Your task to perform on an android device: allow notifications from all sites in the chrome app Image 0: 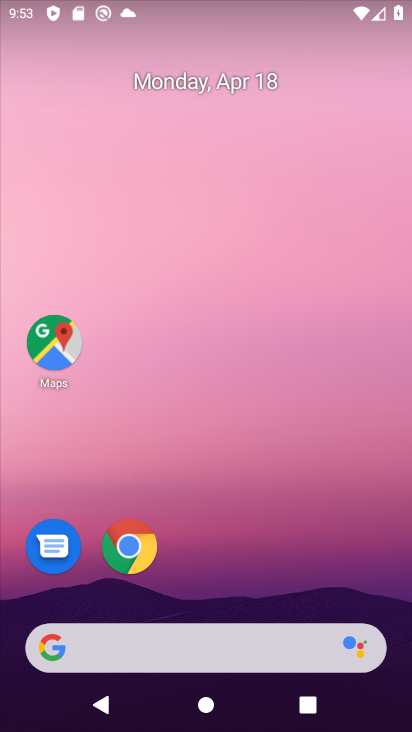
Step 0: click (124, 545)
Your task to perform on an android device: allow notifications from all sites in the chrome app Image 1: 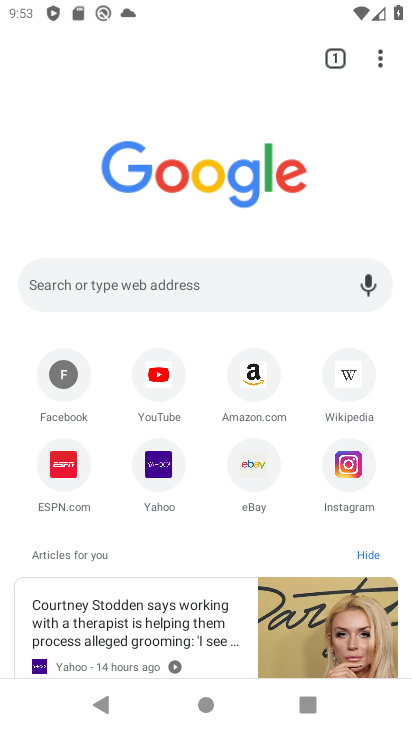
Step 1: click (377, 58)
Your task to perform on an android device: allow notifications from all sites in the chrome app Image 2: 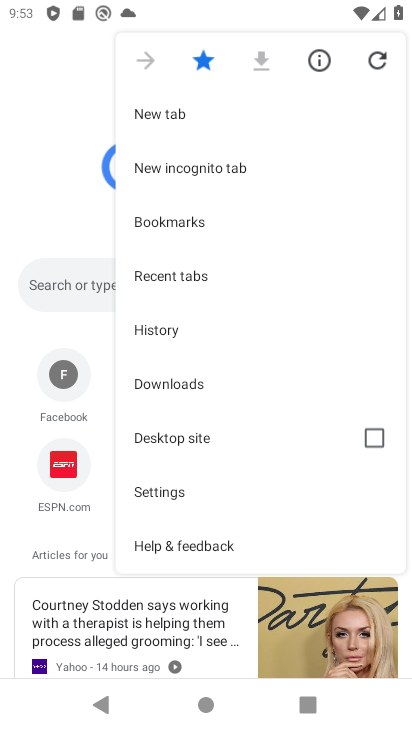
Step 2: click (168, 487)
Your task to perform on an android device: allow notifications from all sites in the chrome app Image 3: 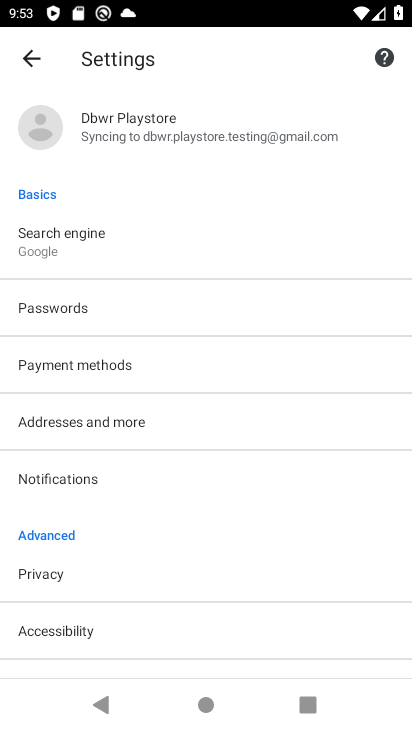
Step 3: drag from (130, 603) to (128, 292)
Your task to perform on an android device: allow notifications from all sites in the chrome app Image 4: 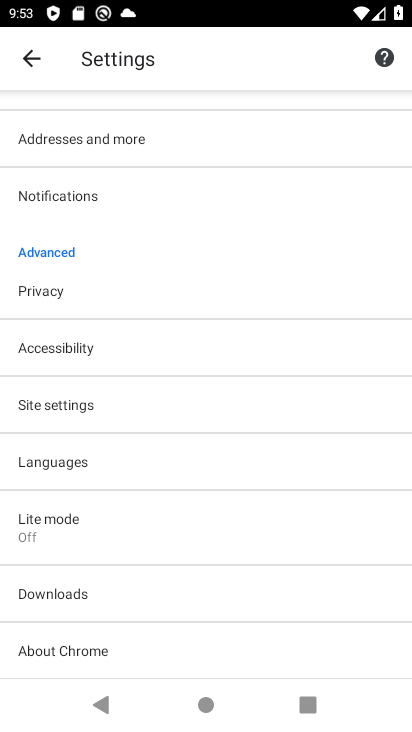
Step 4: click (50, 400)
Your task to perform on an android device: allow notifications from all sites in the chrome app Image 5: 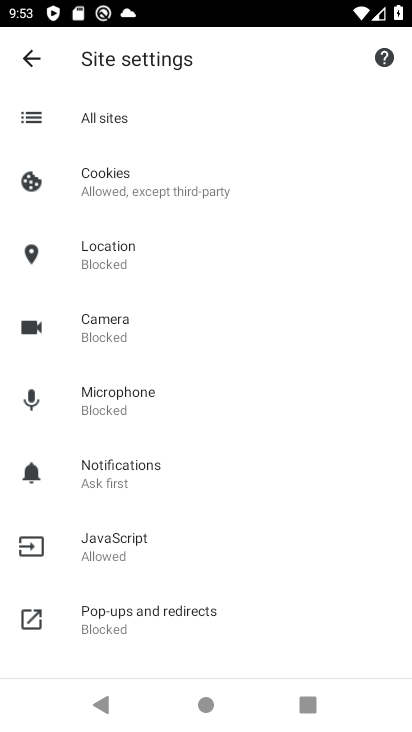
Step 5: click (130, 468)
Your task to perform on an android device: allow notifications from all sites in the chrome app Image 6: 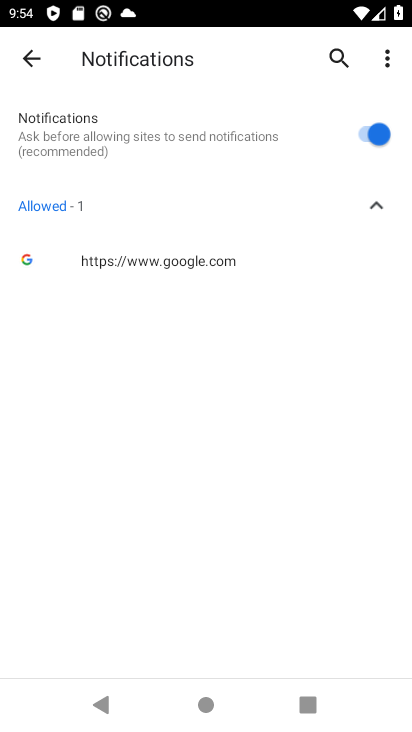
Step 6: task complete